Your task to perform on an android device: toggle pop-ups in chrome Image 0: 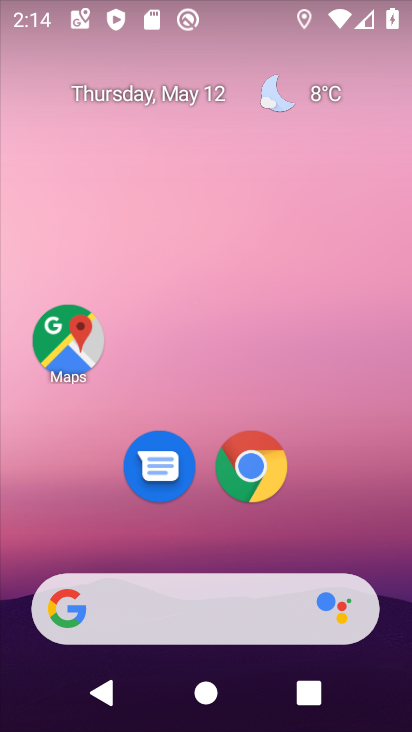
Step 0: click (265, 458)
Your task to perform on an android device: toggle pop-ups in chrome Image 1: 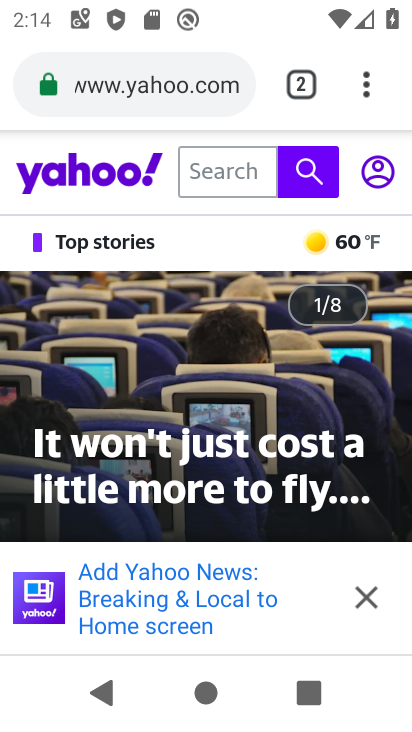
Step 1: click (368, 87)
Your task to perform on an android device: toggle pop-ups in chrome Image 2: 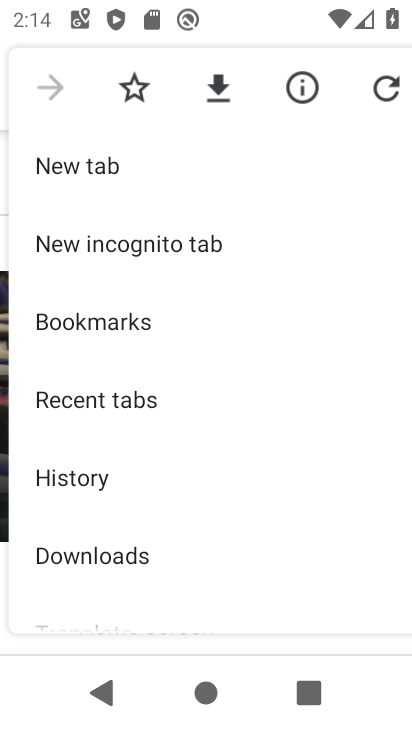
Step 2: drag from (174, 581) to (217, 281)
Your task to perform on an android device: toggle pop-ups in chrome Image 3: 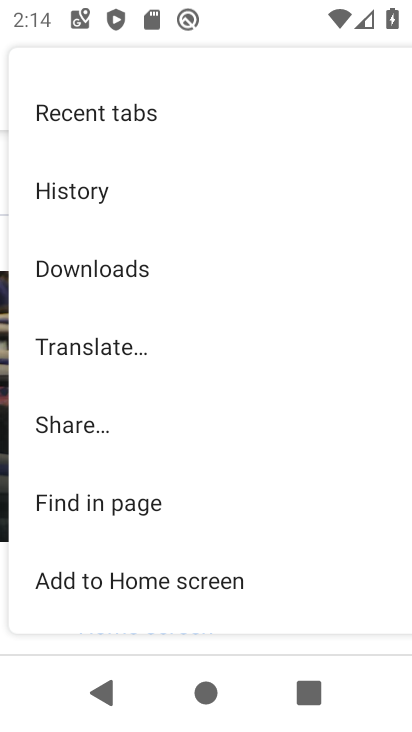
Step 3: drag from (105, 558) to (129, 253)
Your task to perform on an android device: toggle pop-ups in chrome Image 4: 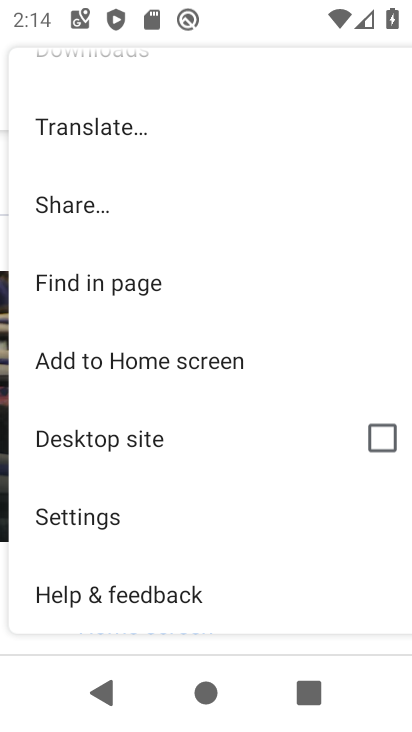
Step 4: click (91, 520)
Your task to perform on an android device: toggle pop-ups in chrome Image 5: 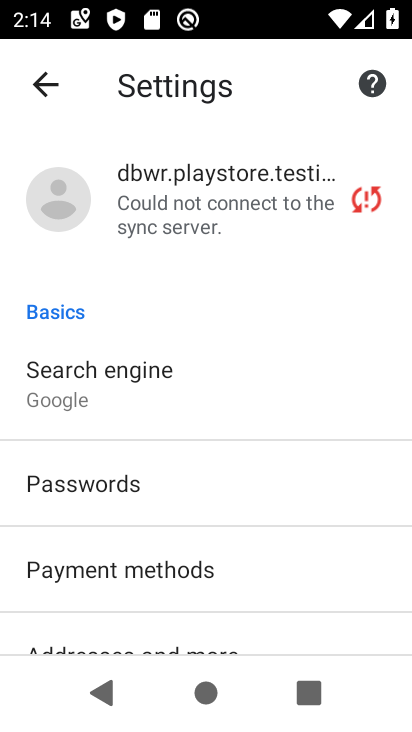
Step 5: drag from (189, 631) to (166, 220)
Your task to perform on an android device: toggle pop-ups in chrome Image 6: 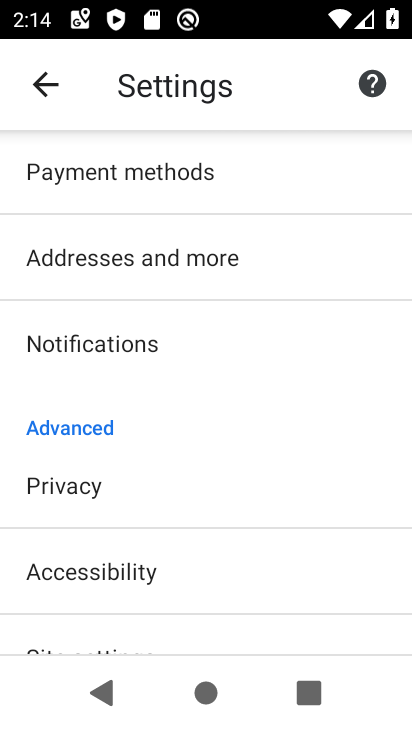
Step 6: drag from (168, 591) to (167, 253)
Your task to perform on an android device: toggle pop-ups in chrome Image 7: 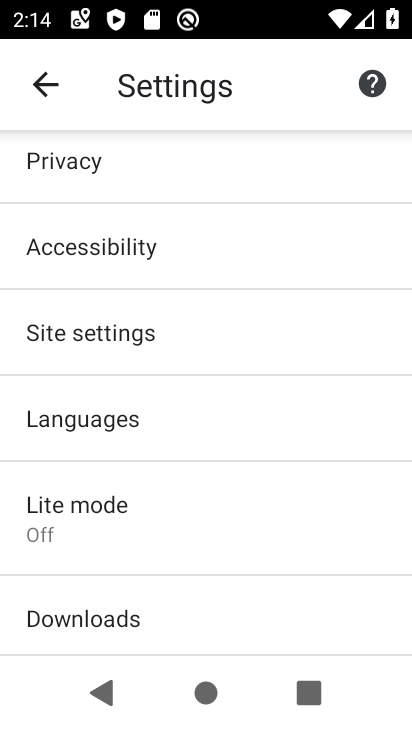
Step 7: click (79, 326)
Your task to perform on an android device: toggle pop-ups in chrome Image 8: 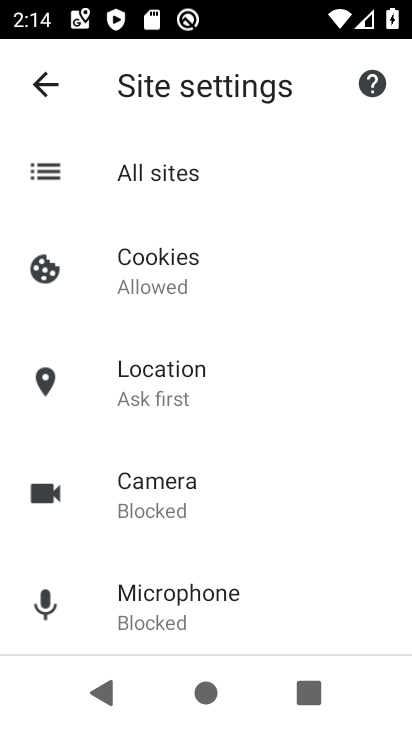
Step 8: drag from (261, 600) to (233, 293)
Your task to perform on an android device: toggle pop-ups in chrome Image 9: 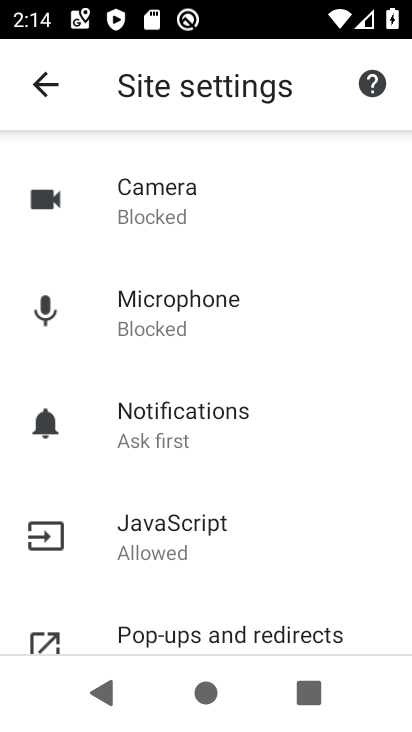
Step 9: drag from (184, 628) to (161, 454)
Your task to perform on an android device: toggle pop-ups in chrome Image 10: 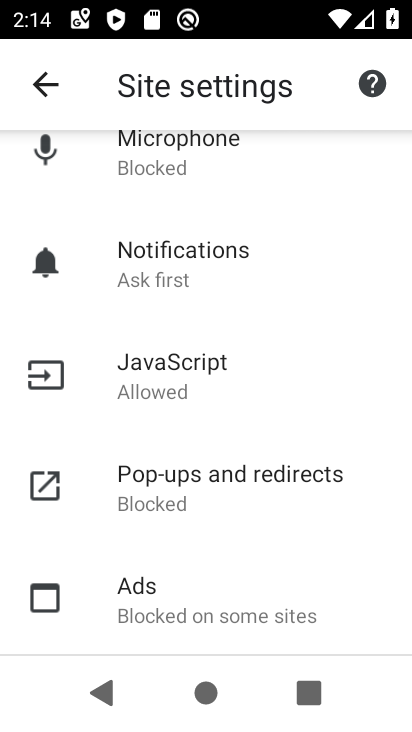
Step 10: click (180, 504)
Your task to perform on an android device: toggle pop-ups in chrome Image 11: 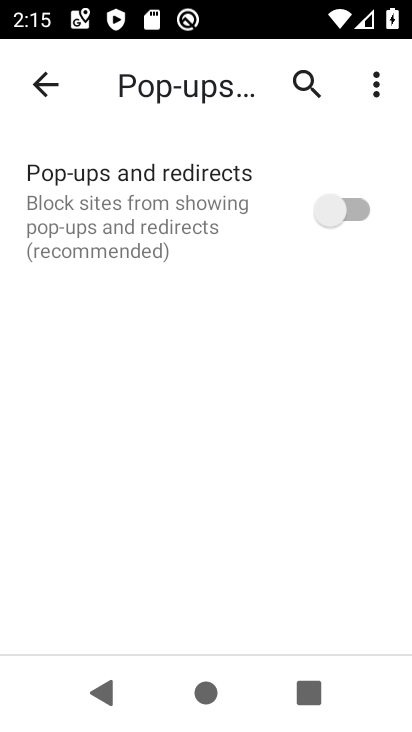
Step 11: click (344, 210)
Your task to perform on an android device: toggle pop-ups in chrome Image 12: 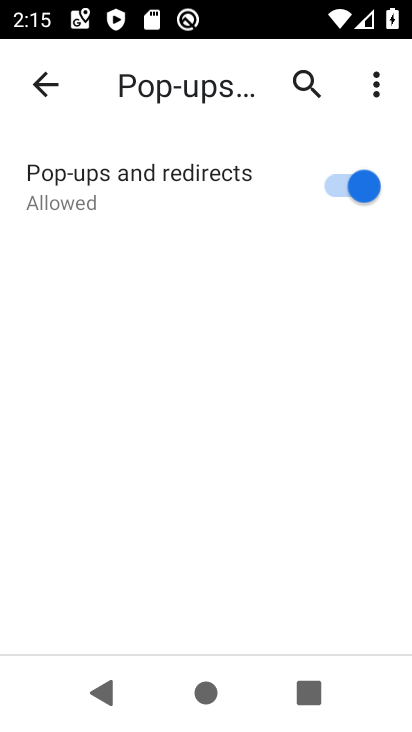
Step 12: task complete